Your task to perform on an android device: Open the map Image 0: 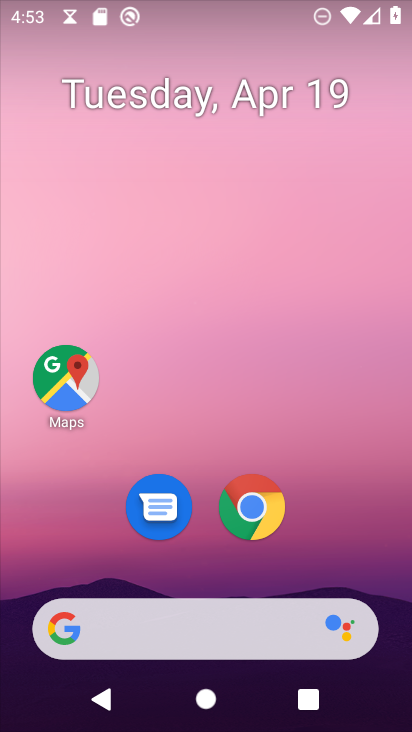
Step 0: drag from (300, 558) to (326, 205)
Your task to perform on an android device: Open the map Image 1: 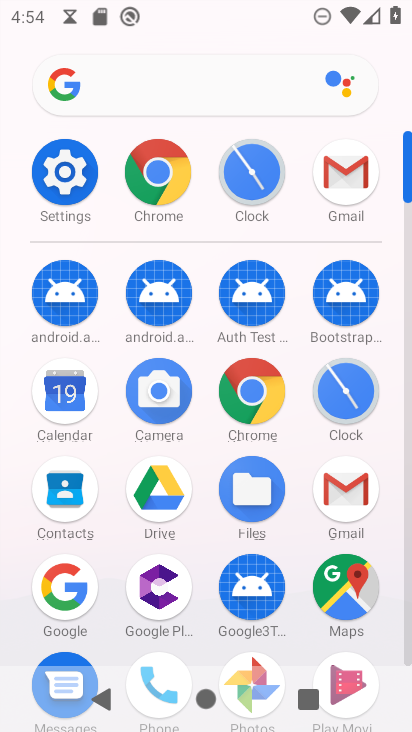
Step 1: click (345, 568)
Your task to perform on an android device: Open the map Image 2: 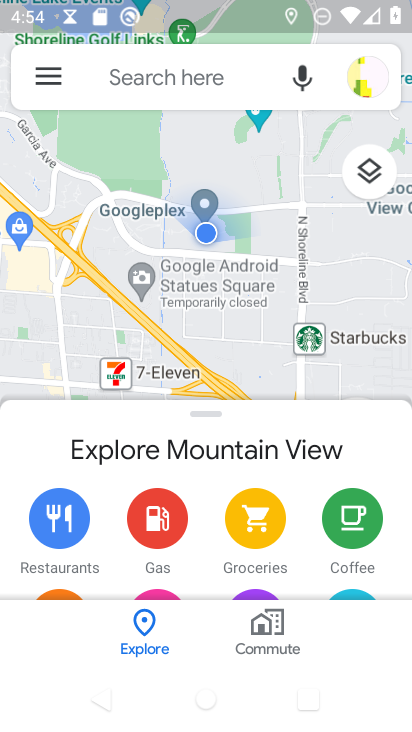
Step 2: task complete